Your task to perform on an android device: change the clock display to analog Image 0: 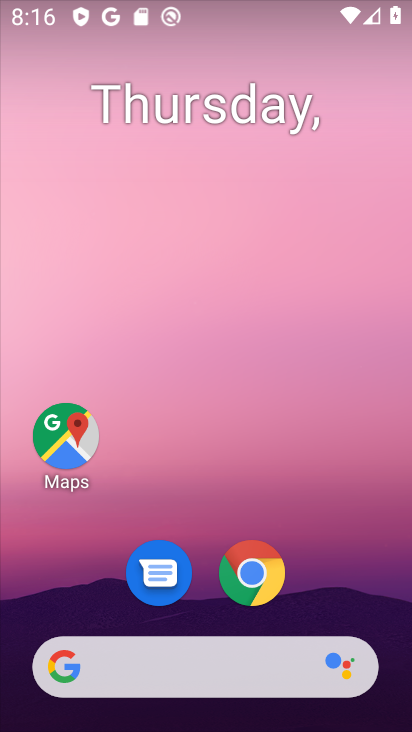
Step 0: drag from (375, 593) to (354, 209)
Your task to perform on an android device: change the clock display to analog Image 1: 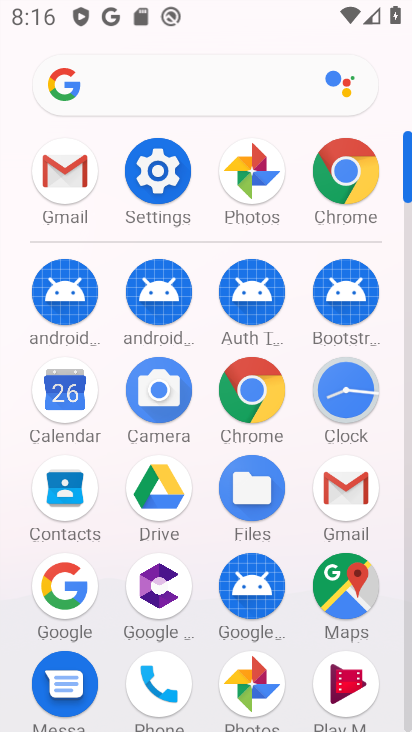
Step 1: click (332, 395)
Your task to perform on an android device: change the clock display to analog Image 2: 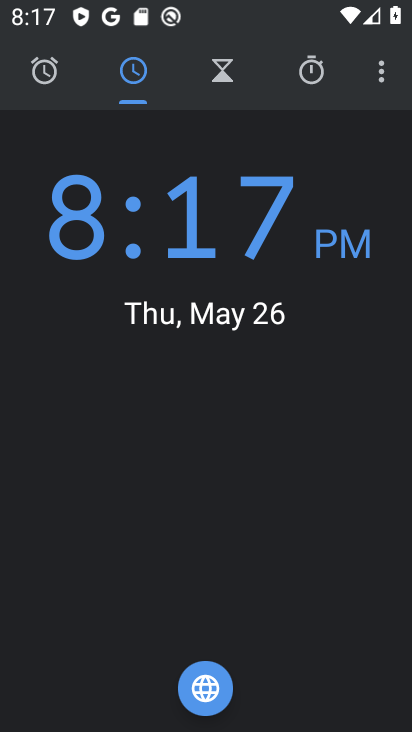
Step 2: click (384, 90)
Your task to perform on an android device: change the clock display to analog Image 3: 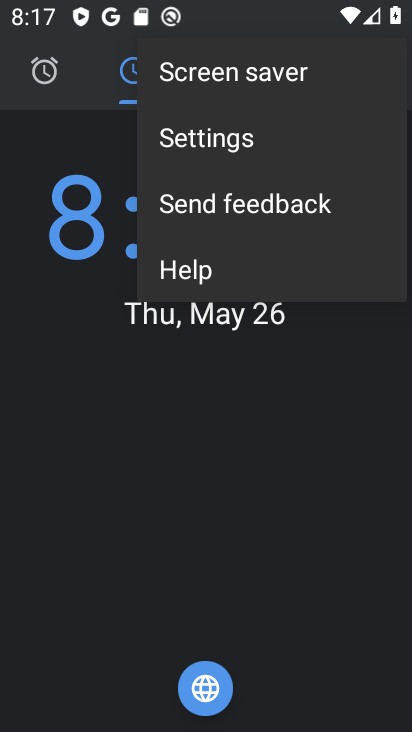
Step 3: click (229, 140)
Your task to perform on an android device: change the clock display to analog Image 4: 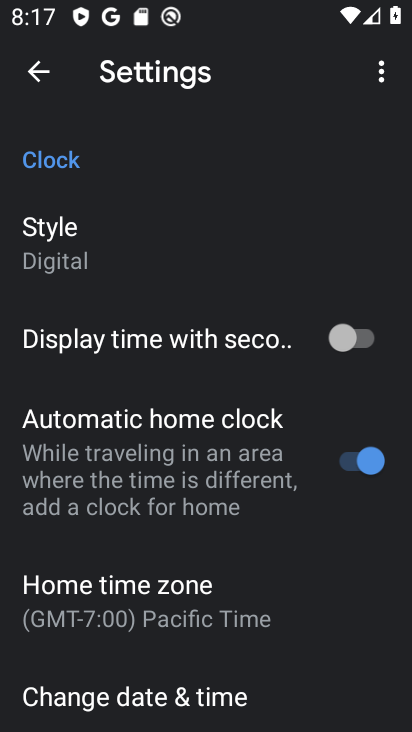
Step 4: click (59, 263)
Your task to perform on an android device: change the clock display to analog Image 5: 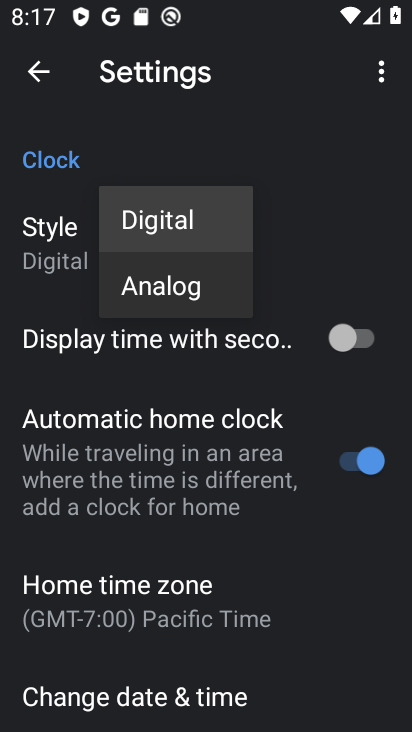
Step 5: click (149, 291)
Your task to perform on an android device: change the clock display to analog Image 6: 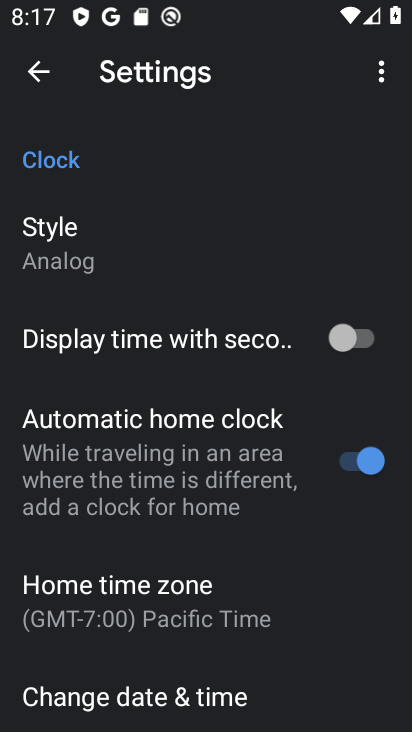
Step 6: task complete